Your task to perform on an android device: set an alarm Image 0: 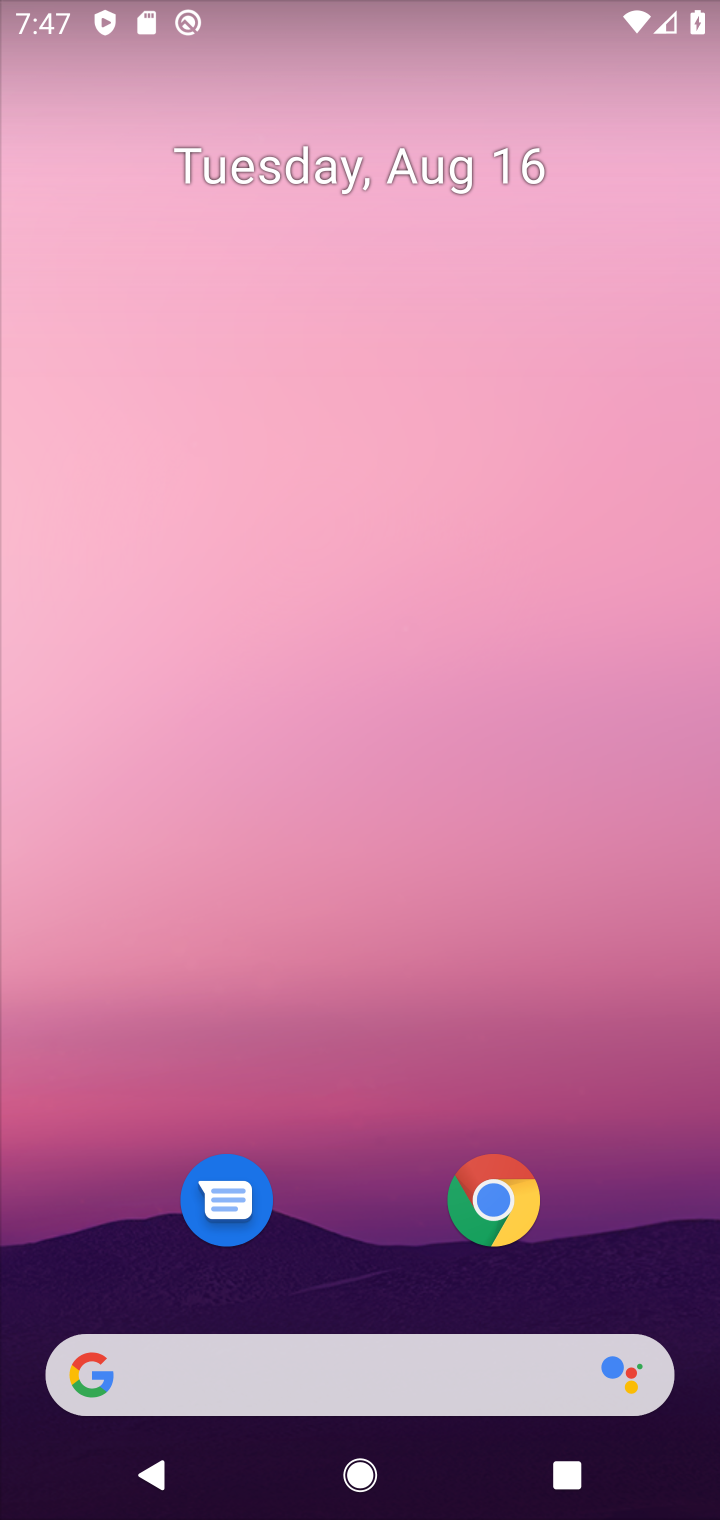
Step 0: click (390, 724)
Your task to perform on an android device: set an alarm Image 1: 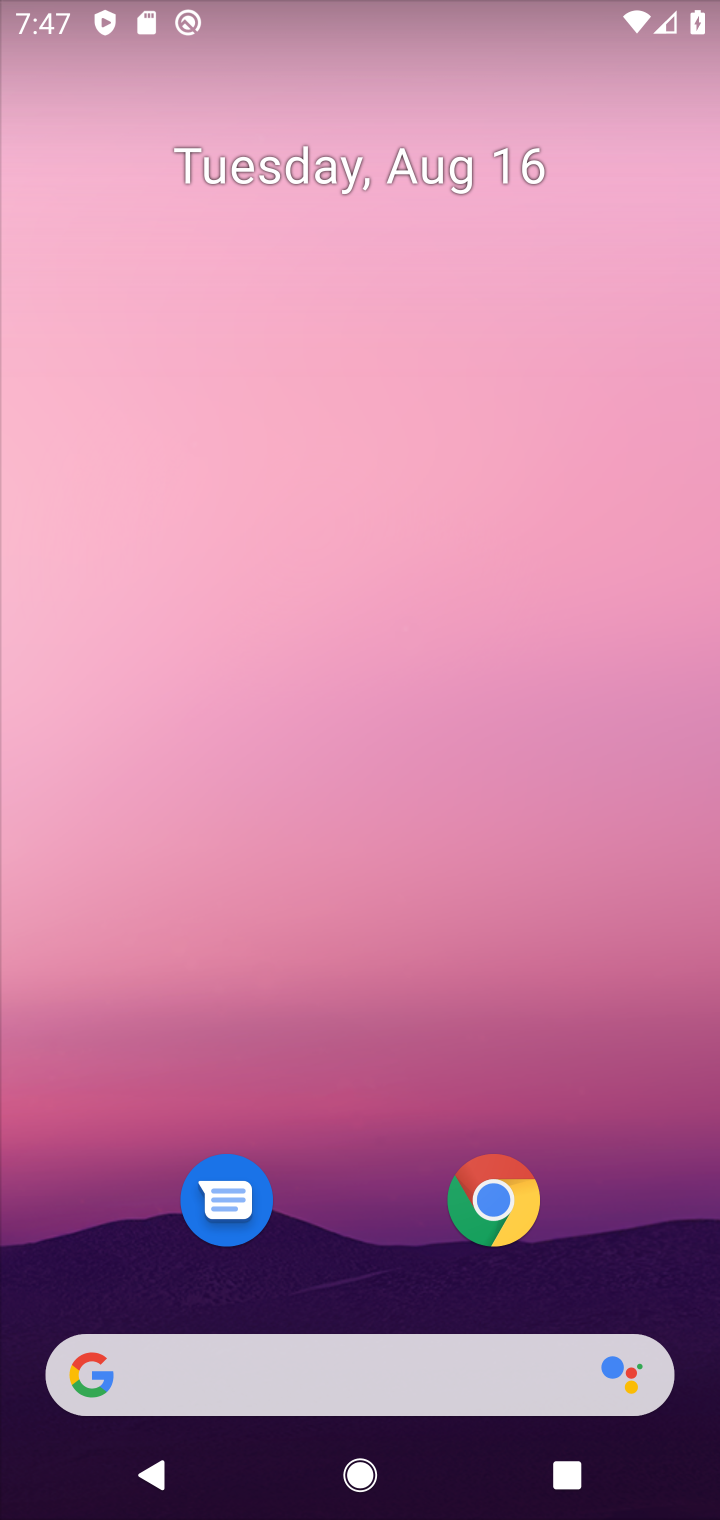
Step 1: drag from (74, 1388) to (528, 291)
Your task to perform on an android device: set an alarm Image 2: 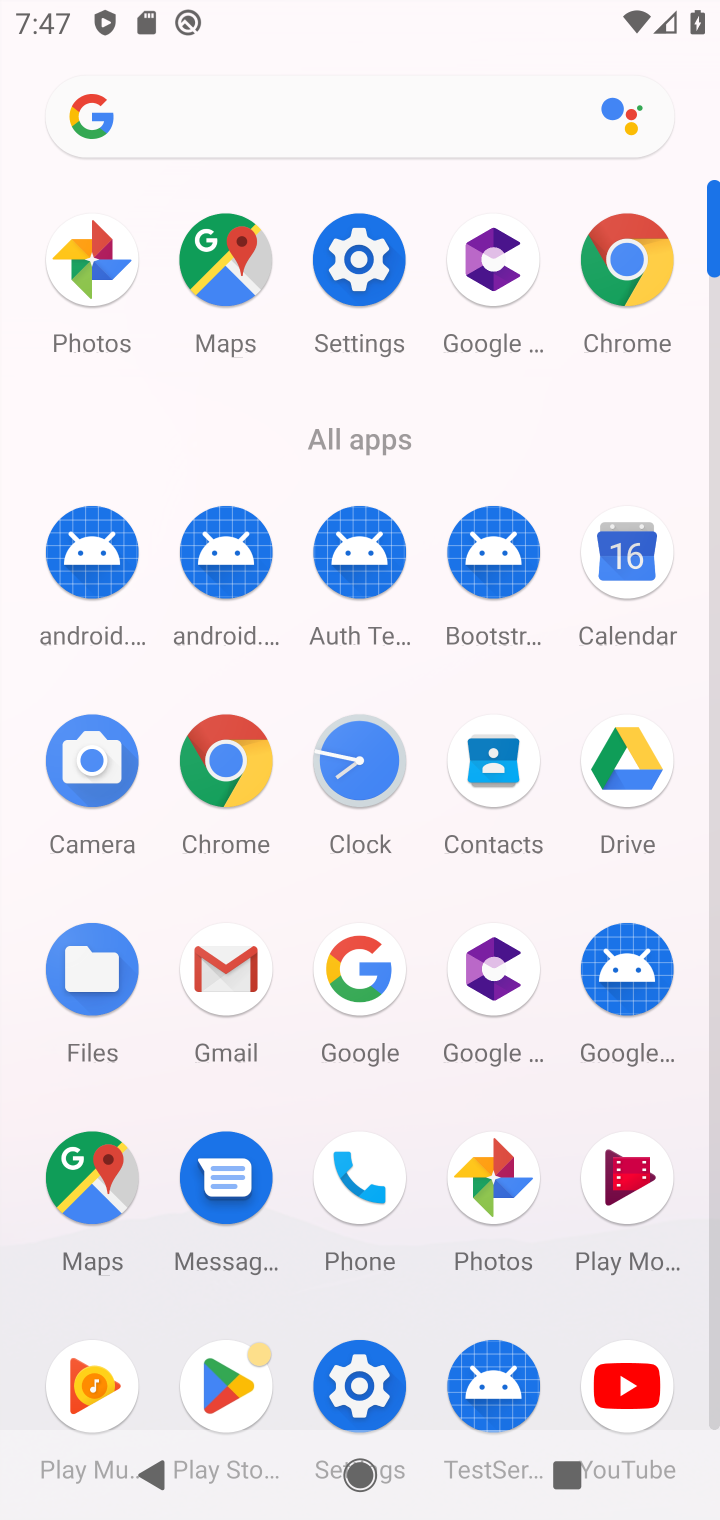
Step 2: click (352, 771)
Your task to perform on an android device: set an alarm Image 3: 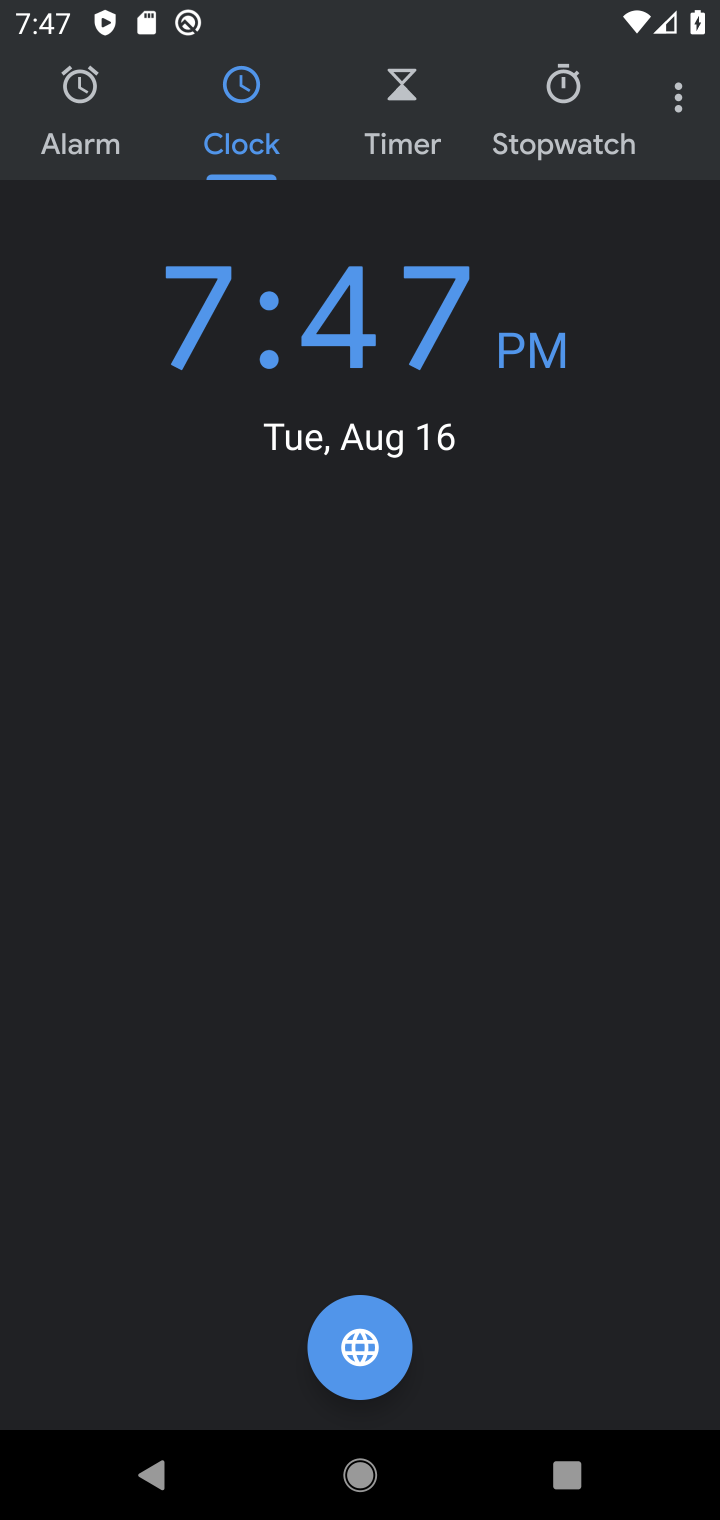
Step 3: click (91, 125)
Your task to perform on an android device: set an alarm Image 4: 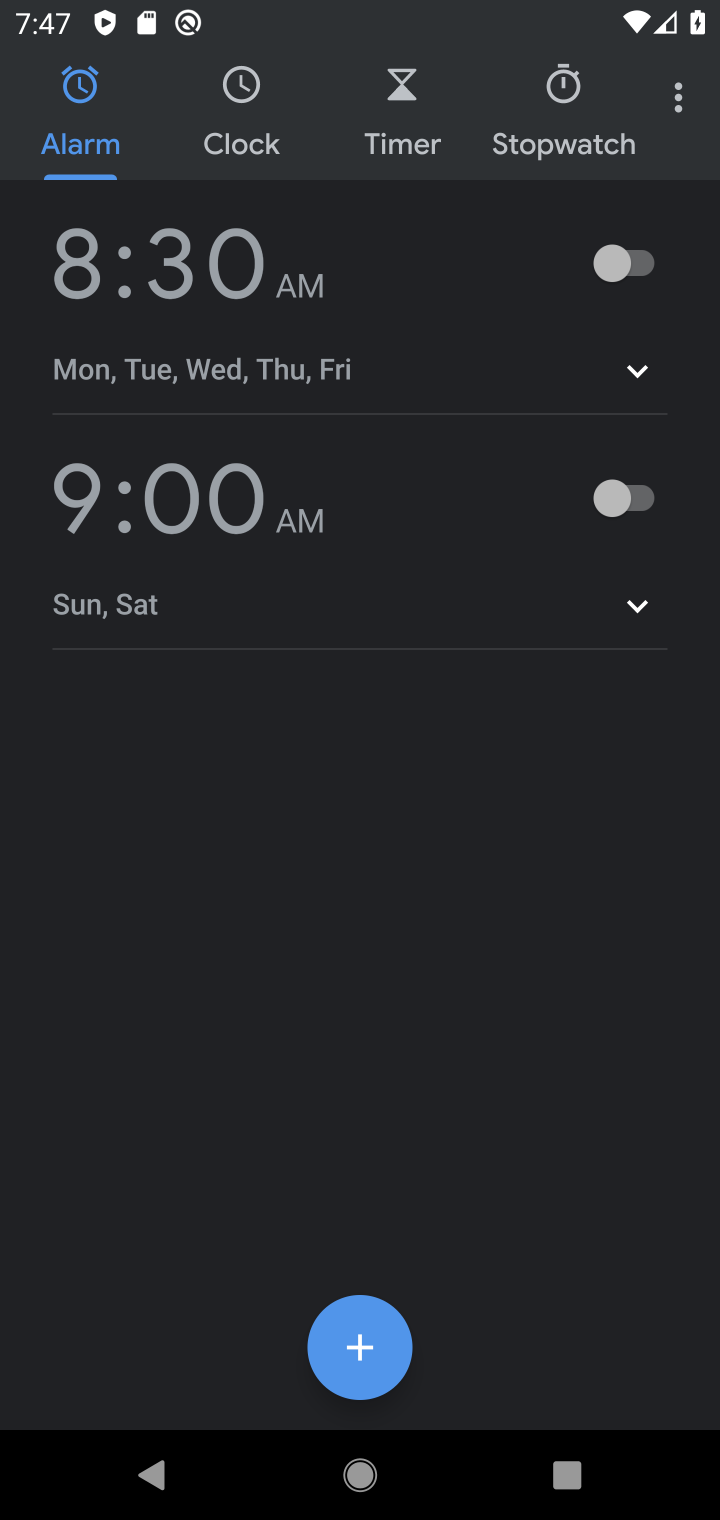
Step 4: click (610, 253)
Your task to perform on an android device: set an alarm Image 5: 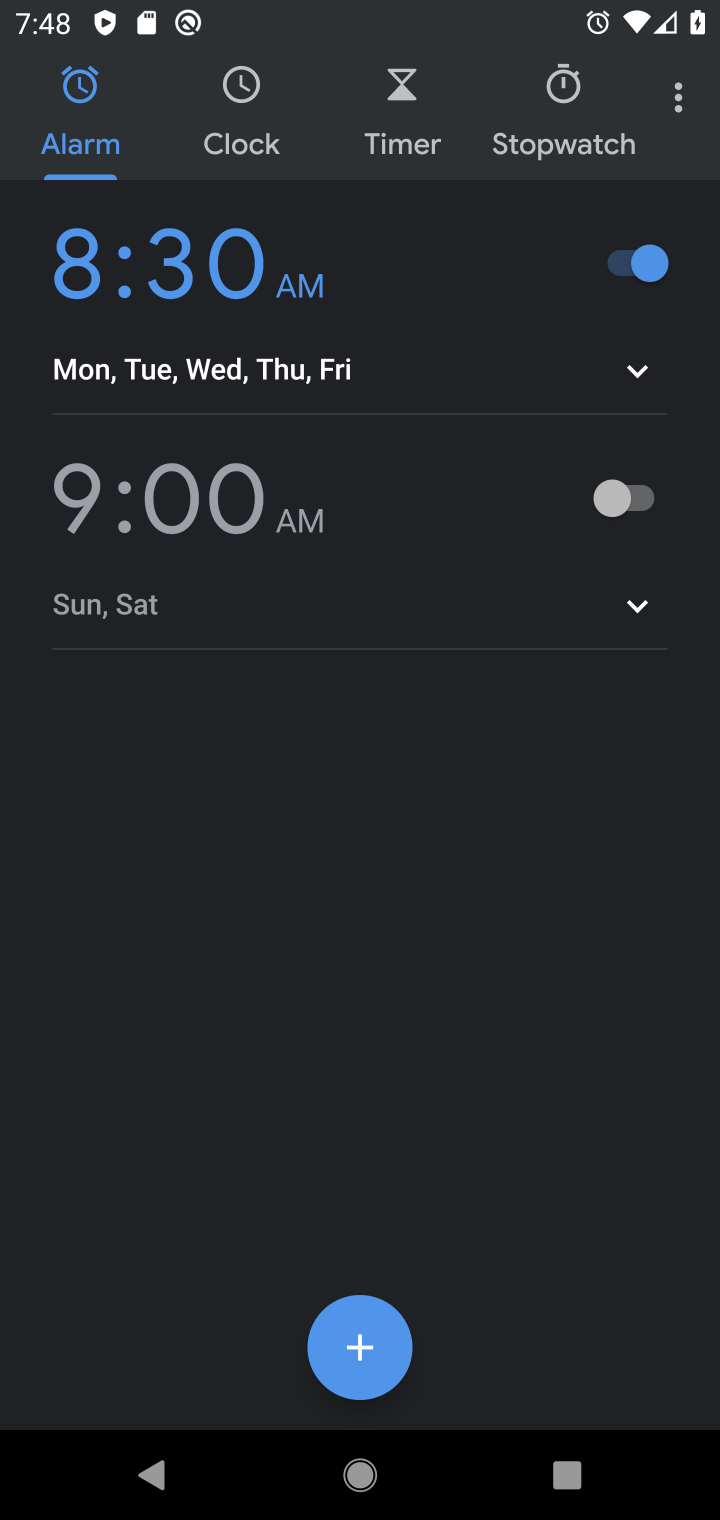
Step 5: task complete